Your task to perform on an android device: Open wifi settings Image 0: 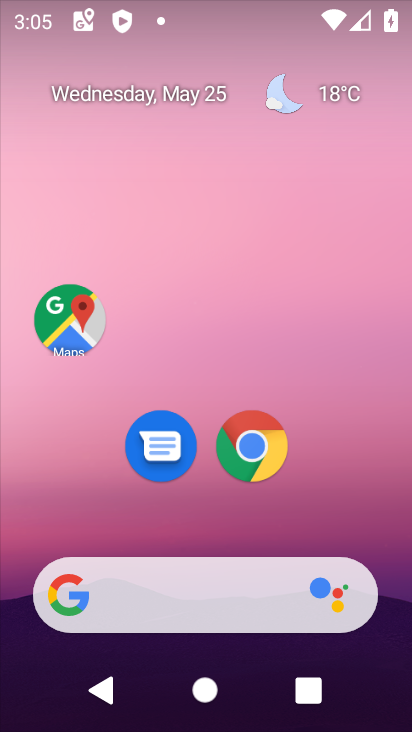
Step 0: drag from (201, 571) to (190, 90)
Your task to perform on an android device: Open wifi settings Image 1: 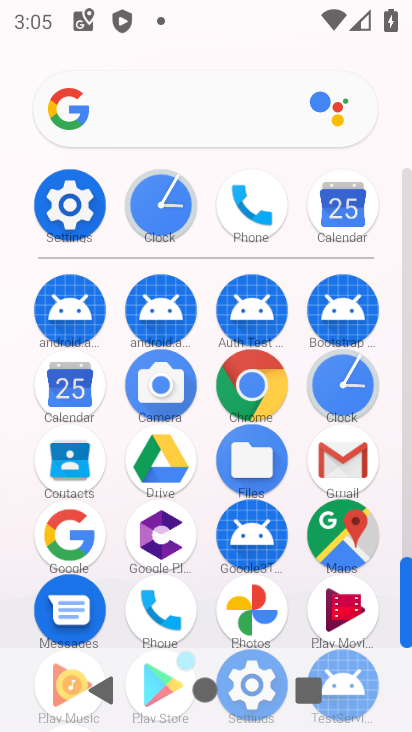
Step 1: click (56, 211)
Your task to perform on an android device: Open wifi settings Image 2: 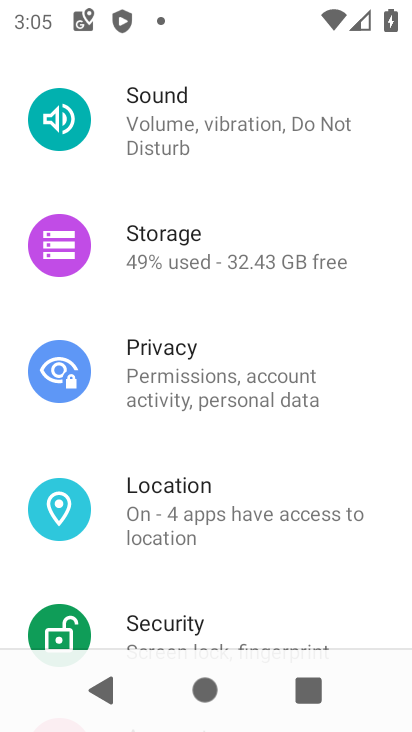
Step 2: drag from (109, 140) to (209, 625)
Your task to perform on an android device: Open wifi settings Image 3: 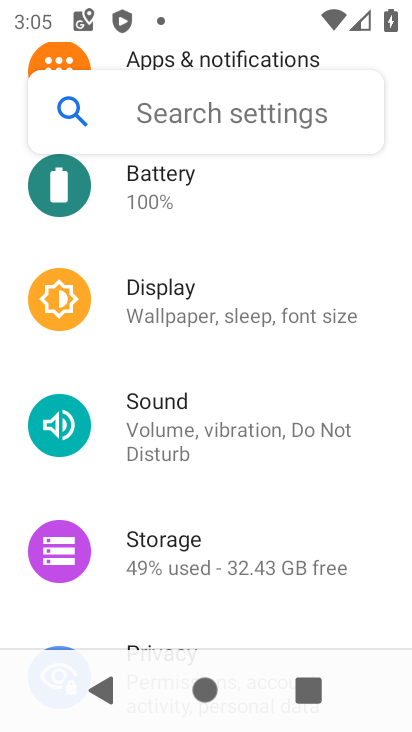
Step 3: drag from (206, 226) to (287, 696)
Your task to perform on an android device: Open wifi settings Image 4: 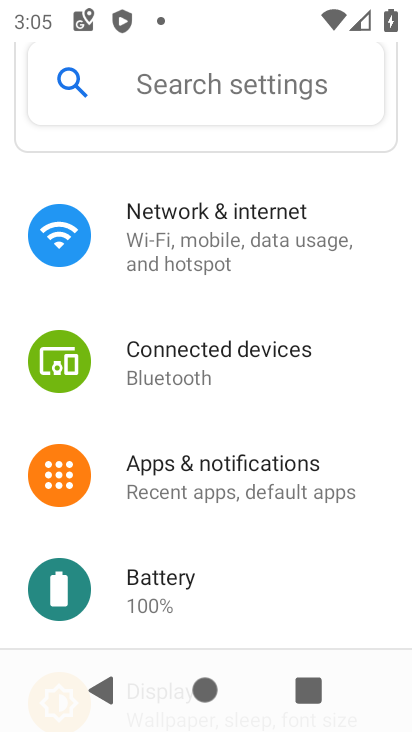
Step 4: click (194, 266)
Your task to perform on an android device: Open wifi settings Image 5: 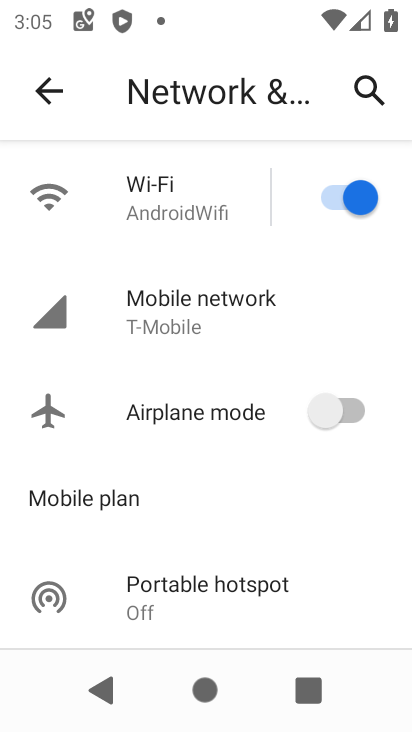
Step 5: click (160, 208)
Your task to perform on an android device: Open wifi settings Image 6: 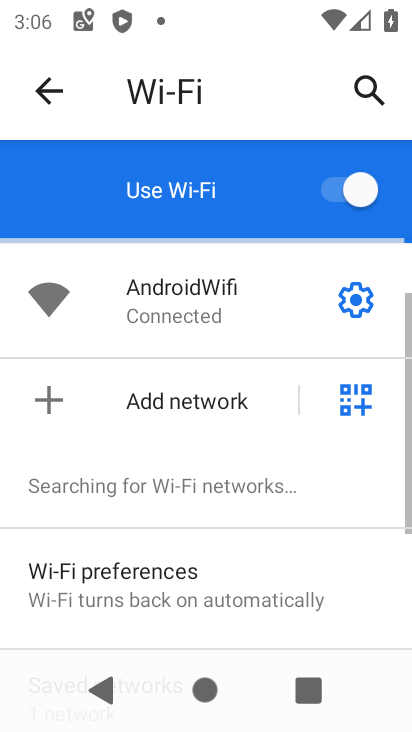
Step 6: task complete